Your task to perform on an android device: turn on translation in the chrome app Image 0: 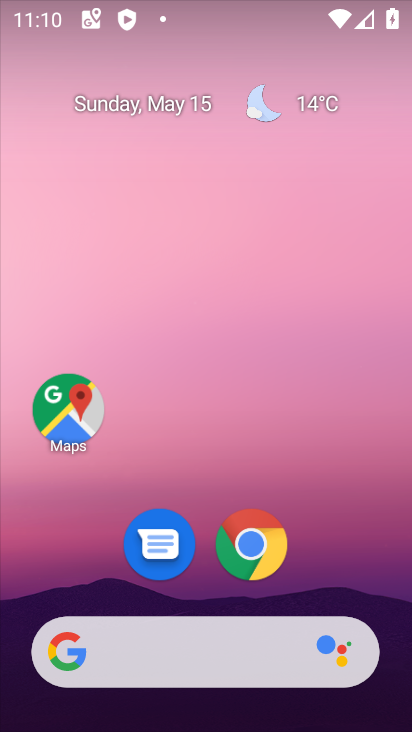
Step 0: click (267, 550)
Your task to perform on an android device: turn on translation in the chrome app Image 1: 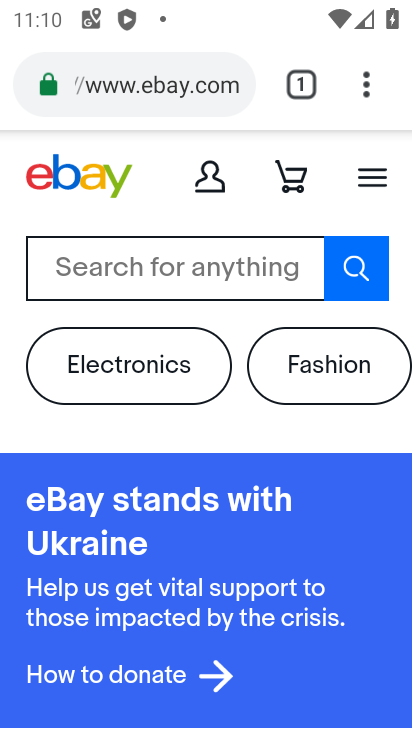
Step 1: drag from (380, 86) to (256, 603)
Your task to perform on an android device: turn on translation in the chrome app Image 2: 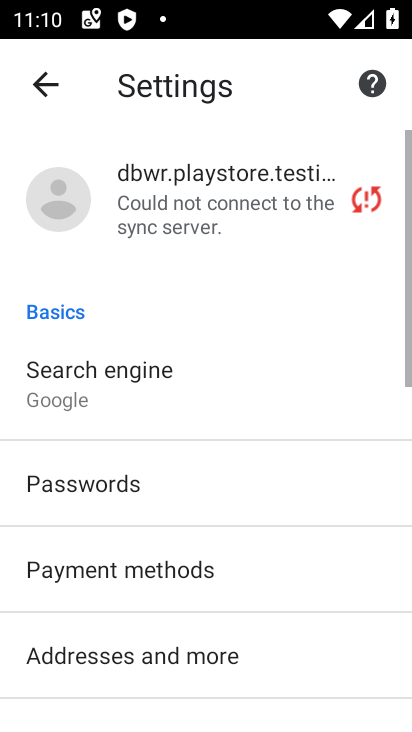
Step 2: drag from (224, 610) to (336, 149)
Your task to perform on an android device: turn on translation in the chrome app Image 3: 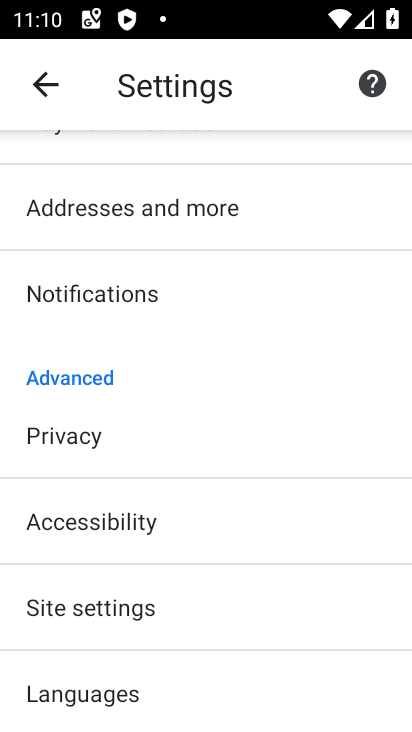
Step 3: drag from (223, 697) to (269, 467)
Your task to perform on an android device: turn on translation in the chrome app Image 4: 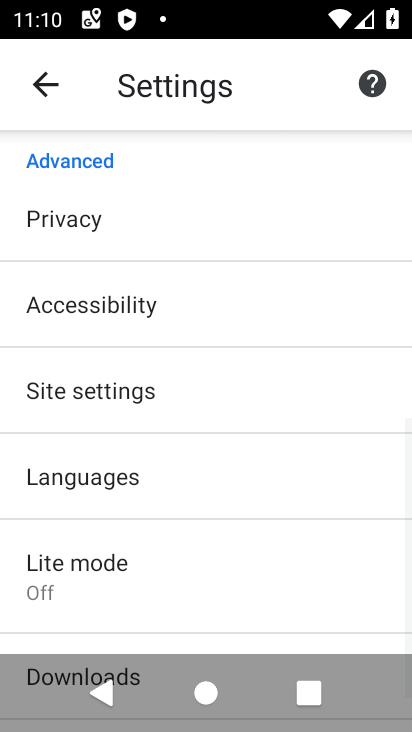
Step 4: click (192, 492)
Your task to perform on an android device: turn on translation in the chrome app Image 5: 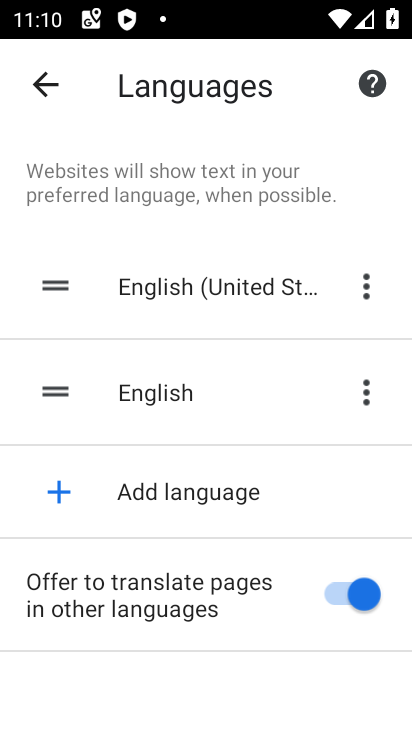
Step 5: task complete